Your task to perform on an android device: find photos in the google photos app Image 0: 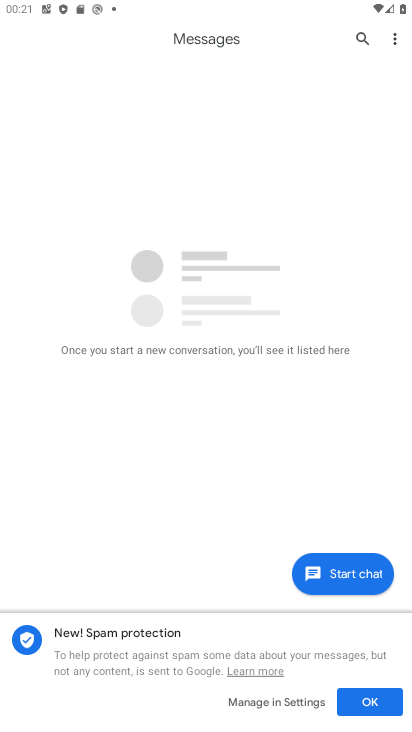
Step 0: press home button
Your task to perform on an android device: find photos in the google photos app Image 1: 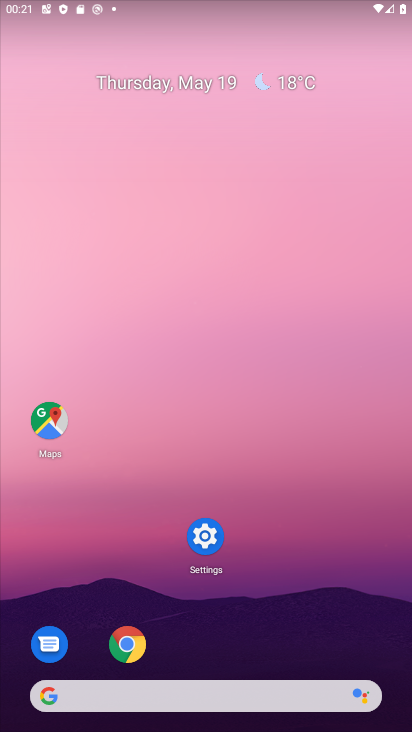
Step 1: drag from (296, 599) to (322, 104)
Your task to perform on an android device: find photos in the google photos app Image 2: 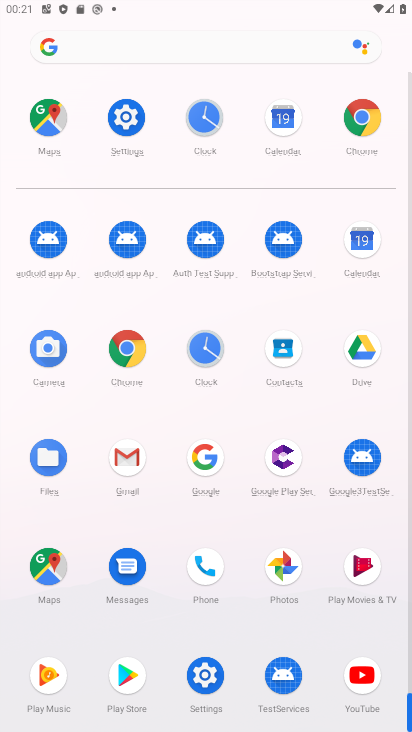
Step 2: click (274, 554)
Your task to perform on an android device: find photos in the google photos app Image 3: 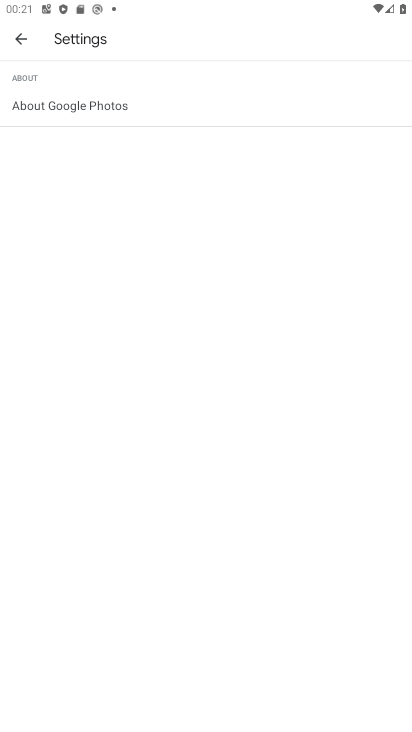
Step 3: click (23, 36)
Your task to perform on an android device: find photos in the google photos app Image 4: 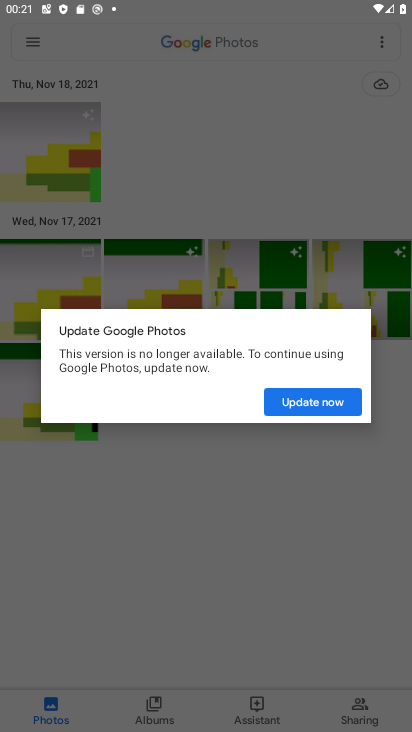
Step 4: click (302, 404)
Your task to perform on an android device: find photos in the google photos app Image 5: 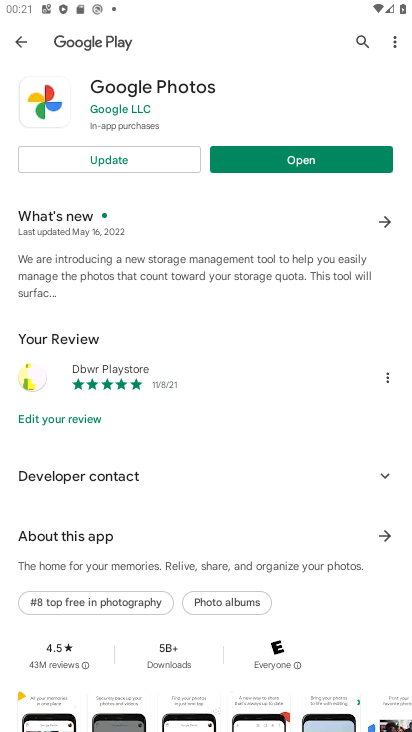
Step 5: click (168, 155)
Your task to perform on an android device: find photos in the google photos app Image 6: 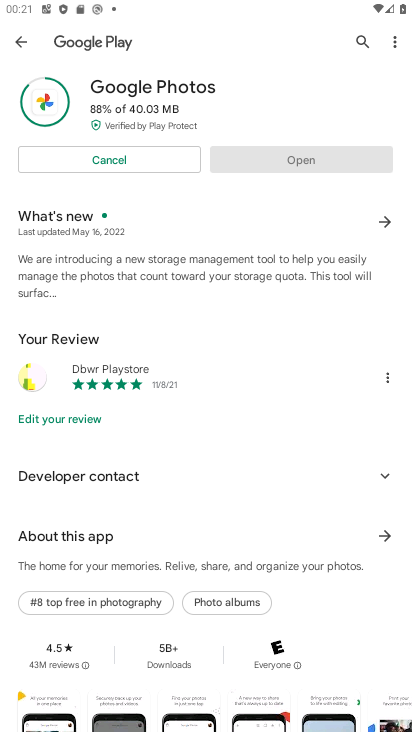
Step 6: task complete